Your task to perform on an android device: turn notification dots on Image 0: 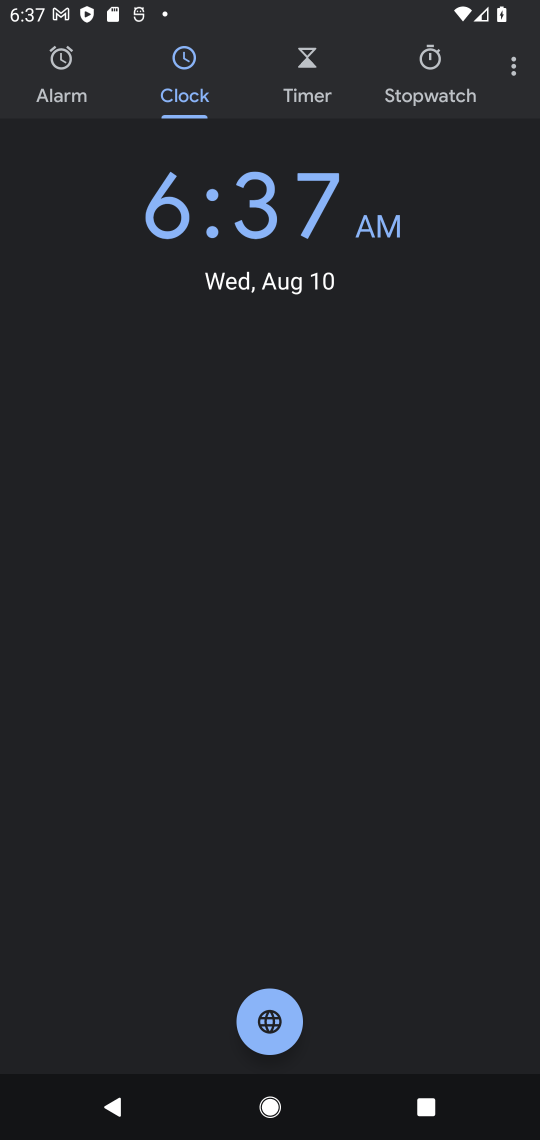
Step 0: press home button
Your task to perform on an android device: turn notification dots on Image 1: 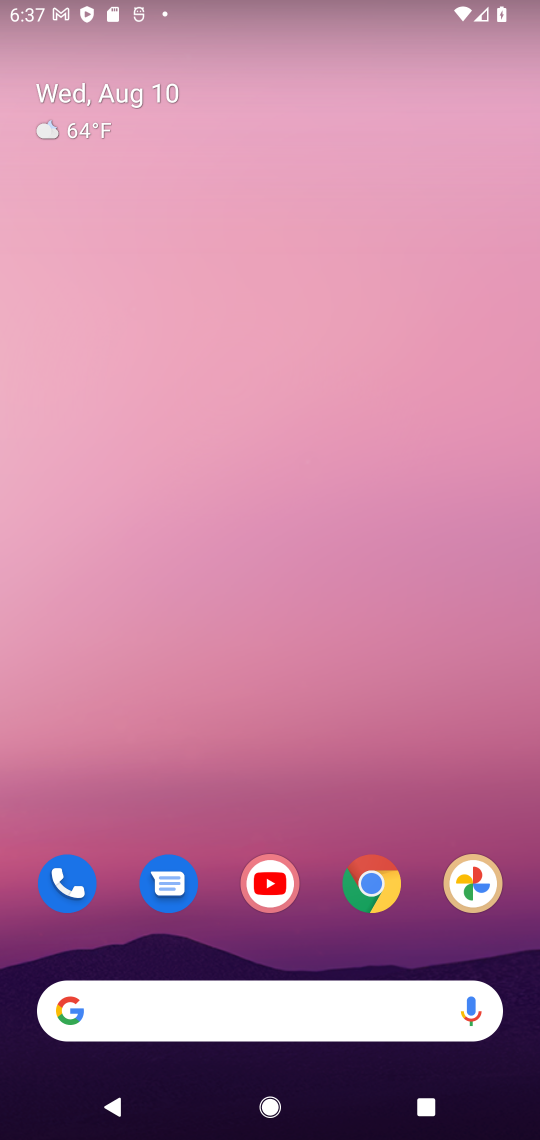
Step 1: drag from (330, 788) to (421, 122)
Your task to perform on an android device: turn notification dots on Image 2: 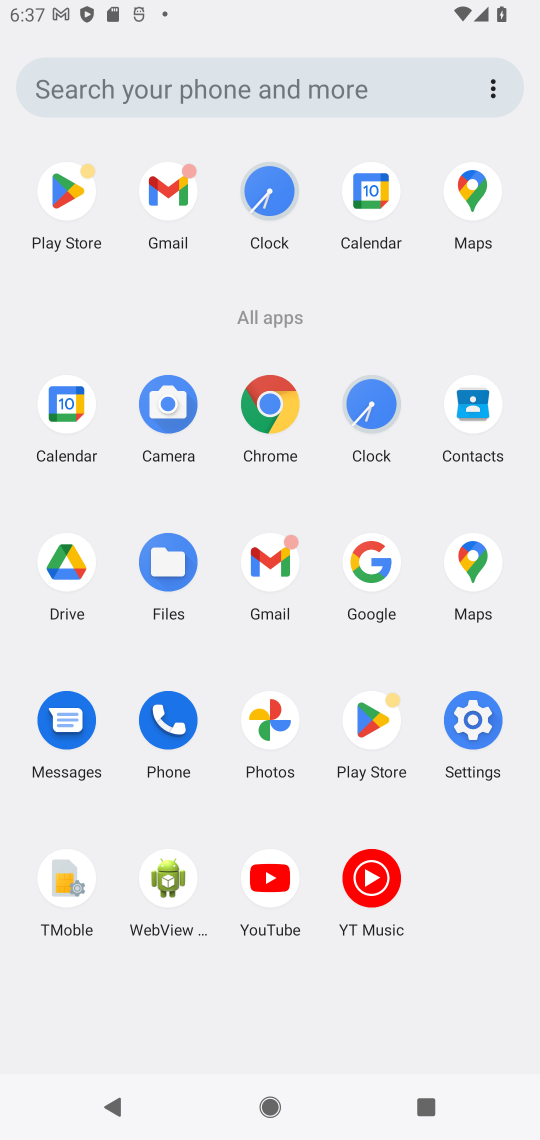
Step 2: click (474, 724)
Your task to perform on an android device: turn notification dots on Image 3: 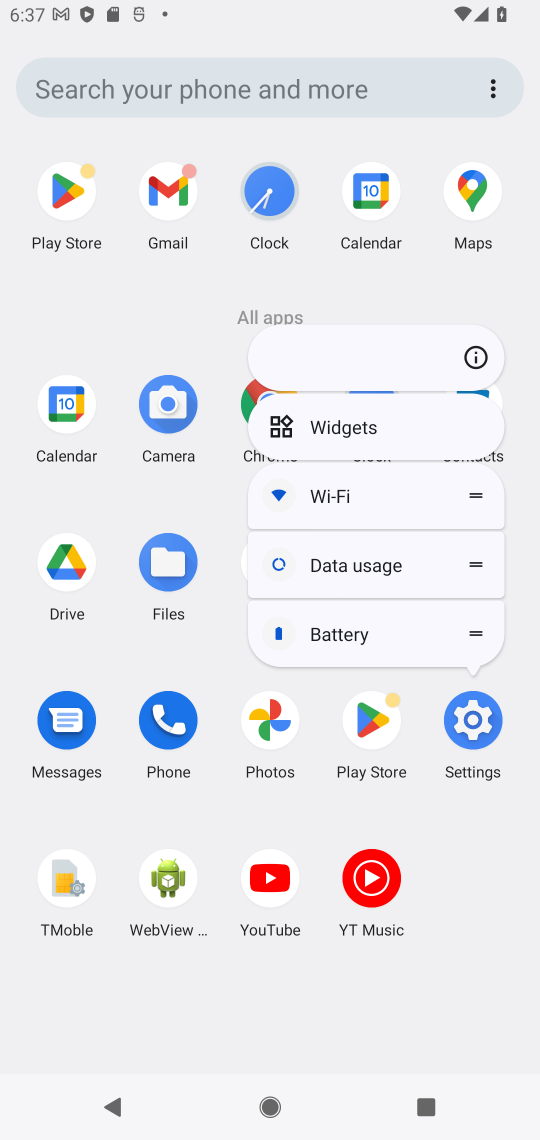
Step 3: click (466, 724)
Your task to perform on an android device: turn notification dots on Image 4: 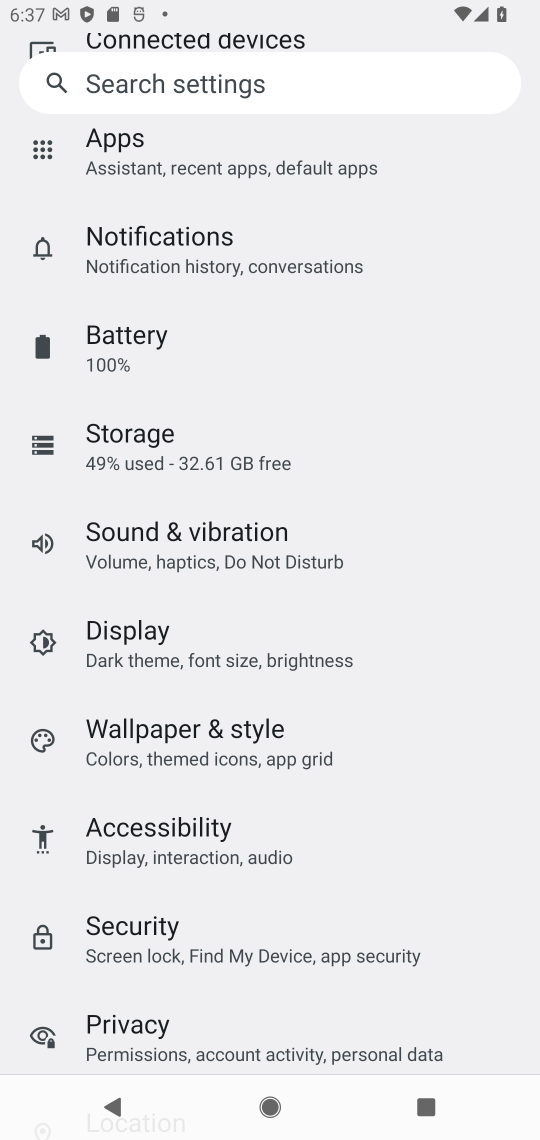
Step 4: click (156, 255)
Your task to perform on an android device: turn notification dots on Image 5: 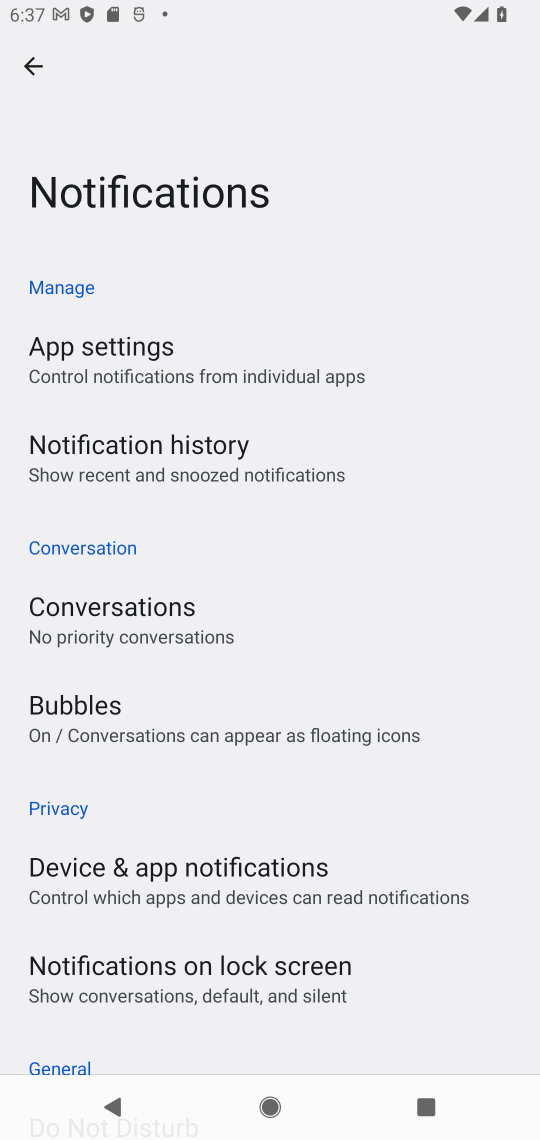
Step 5: task complete